Your task to perform on an android device: Open battery settings Image 0: 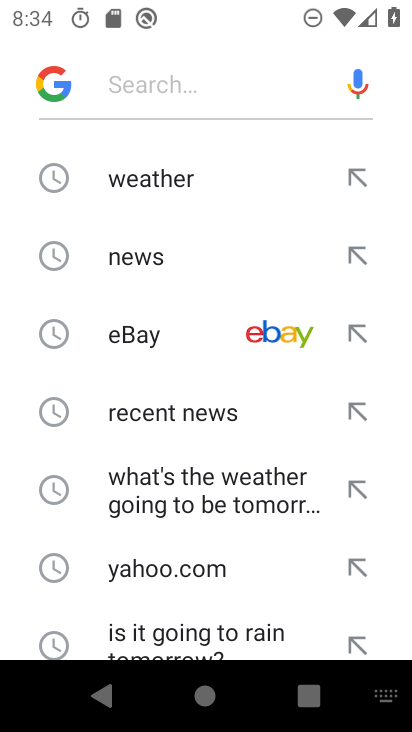
Step 0: press home button
Your task to perform on an android device: Open battery settings Image 1: 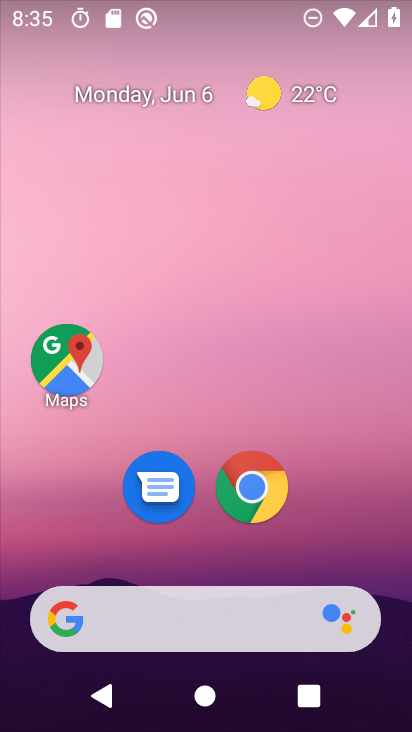
Step 1: drag from (397, 644) to (274, 45)
Your task to perform on an android device: Open battery settings Image 2: 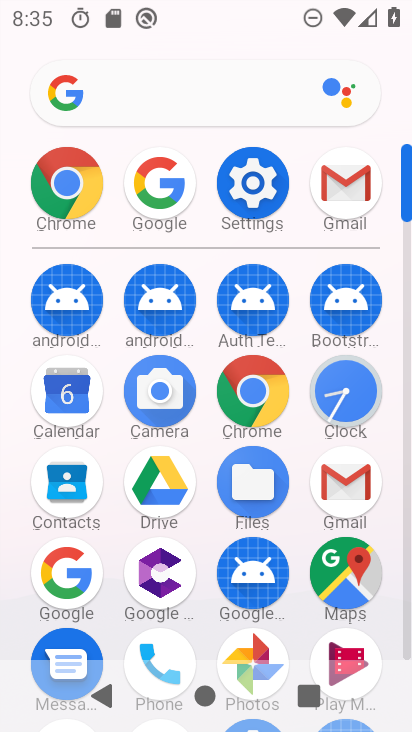
Step 2: click (270, 176)
Your task to perform on an android device: Open battery settings Image 3: 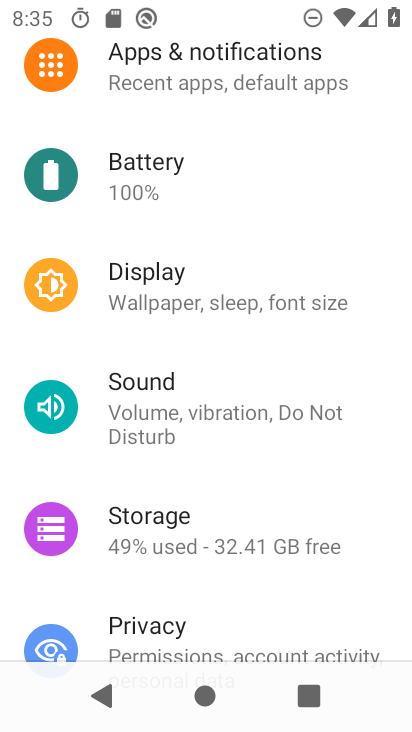
Step 3: click (133, 177)
Your task to perform on an android device: Open battery settings Image 4: 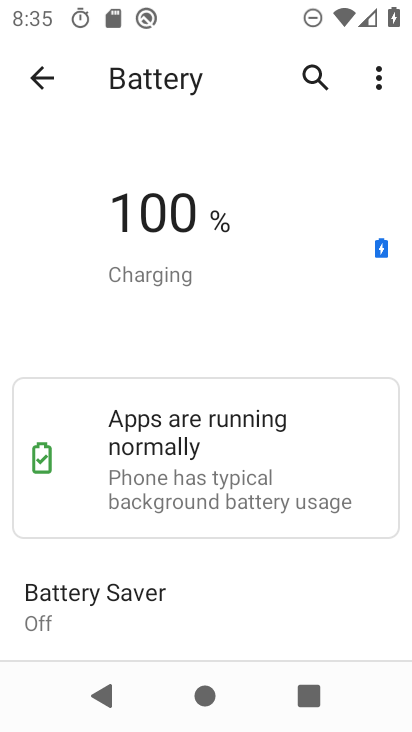
Step 4: task complete